Your task to perform on an android device: turn off improve location accuracy Image 0: 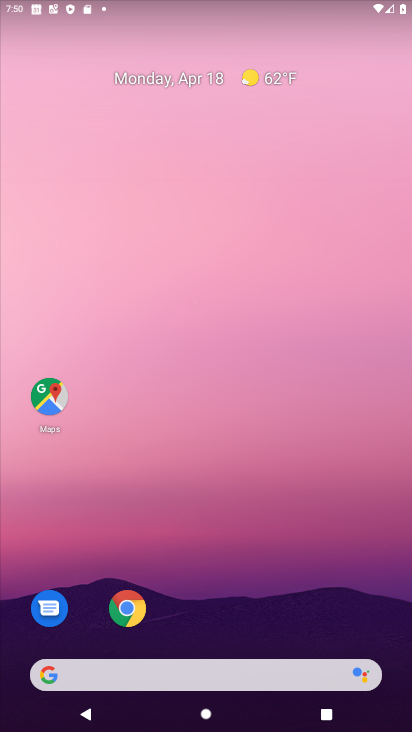
Step 0: drag from (172, 672) to (182, 218)
Your task to perform on an android device: turn off improve location accuracy Image 1: 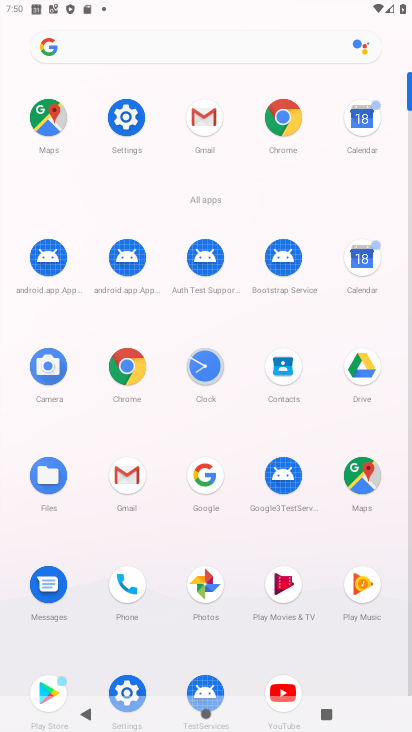
Step 1: click (122, 128)
Your task to perform on an android device: turn off improve location accuracy Image 2: 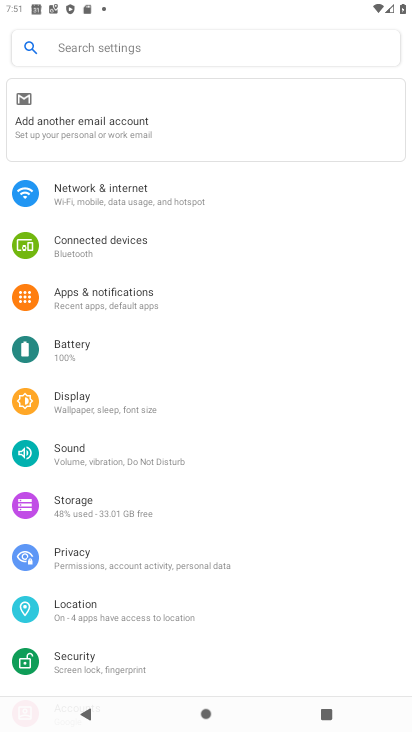
Step 2: click (94, 606)
Your task to perform on an android device: turn off improve location accuracy Image 3: 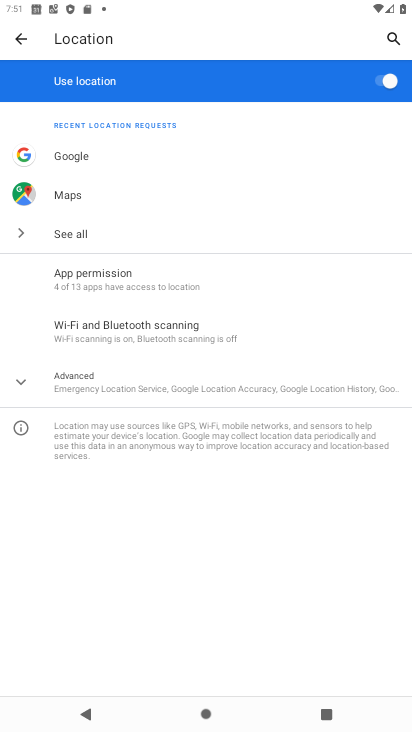
Step 3: click (147, 377)
Your task to perform on an android device: turn off improve location accuracy Image 4: 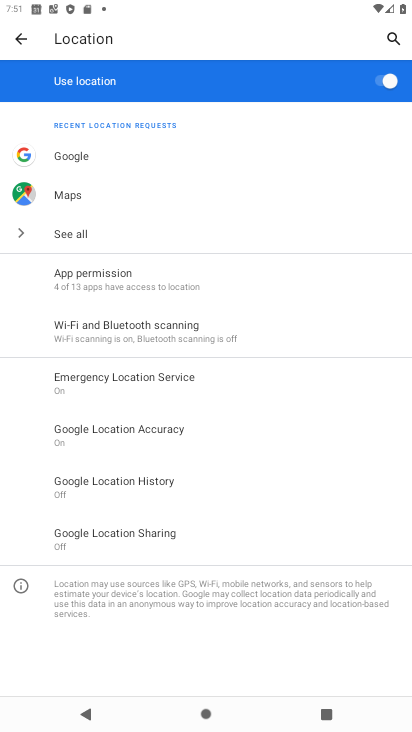
Step 4: click (152, 431)
Your task to perform on an android device: turn off improve location accuracy Image 5: 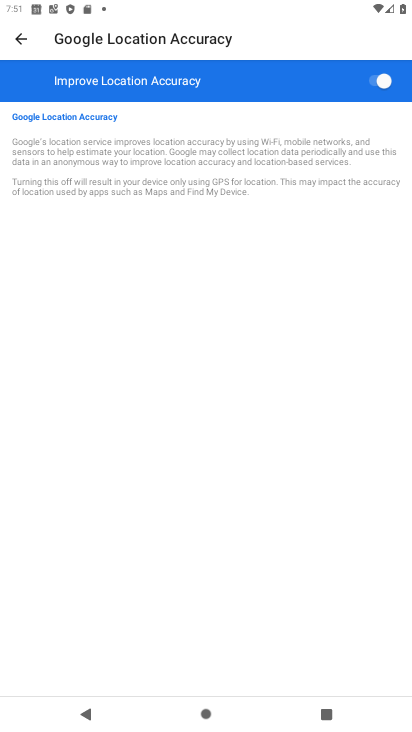
Step 5: click (373, 83)
Your task to perform on an android device: turn off improve location accuracy Image 6: 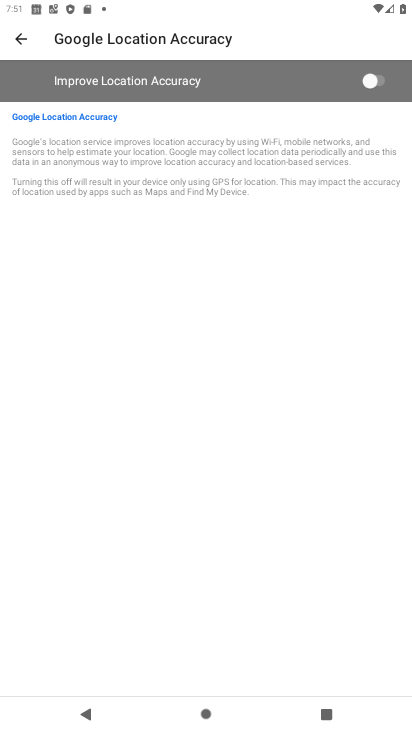
Step 6: task complete